Your task to perform on an android device: turn off wifi Image 0: 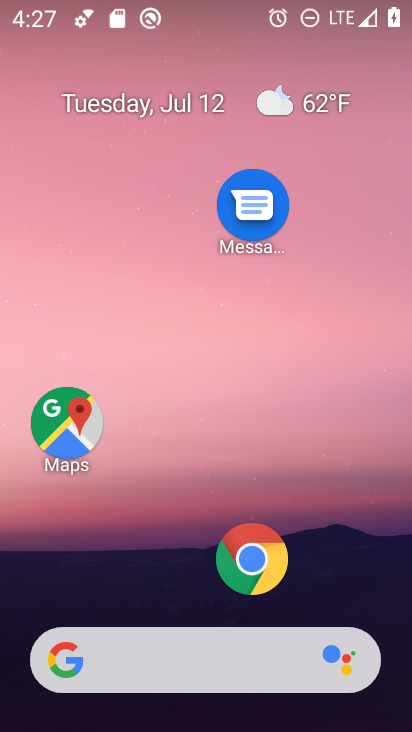
Step 0: drag from (126, 22) to (248, 649)
Your task to perform on an android device: turn off wifi Image 1: 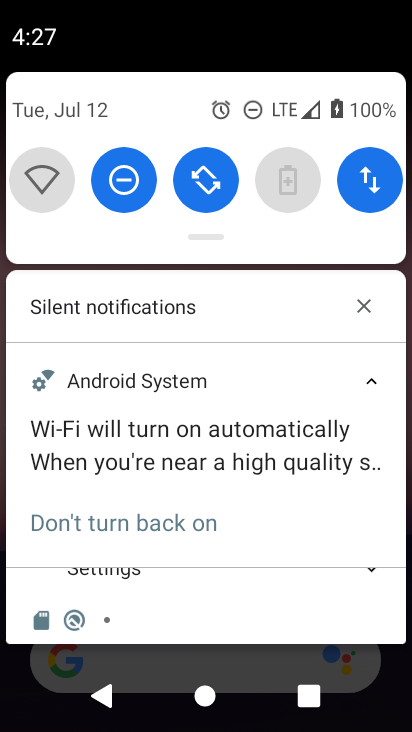
Step 1: task complete